Your task to perform on an android device: turn off data saver in the chrome app Image 0: 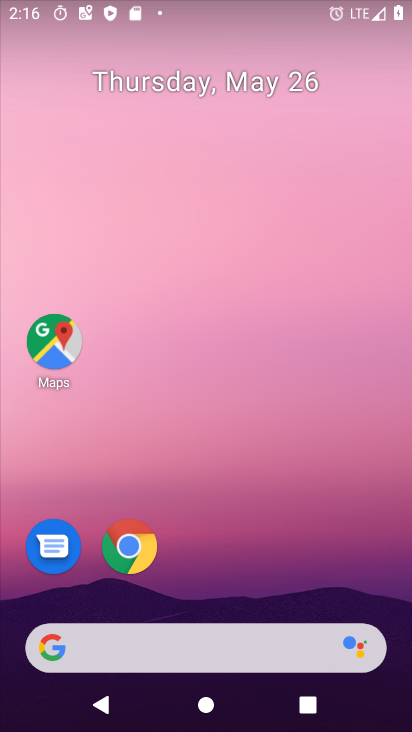
Step 0: drag from (245, 557) to (251, 80)
Your task to perform on an android device: turn off data saver in the chrome app Image 1: 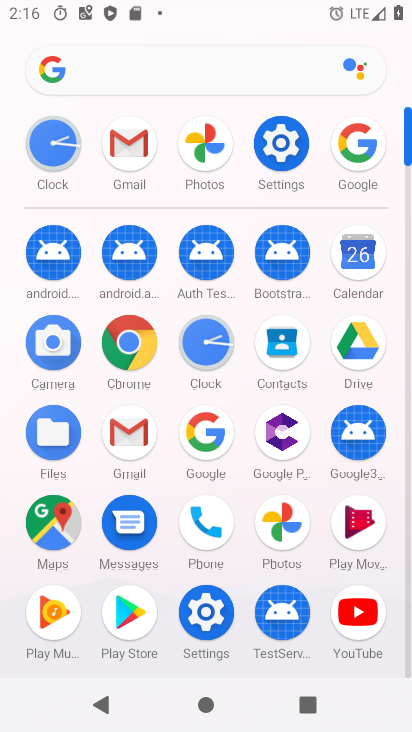
Step 1: click (129, 349)
Your task to perform on an android device: turn off data saver in the chrome app Image 2: 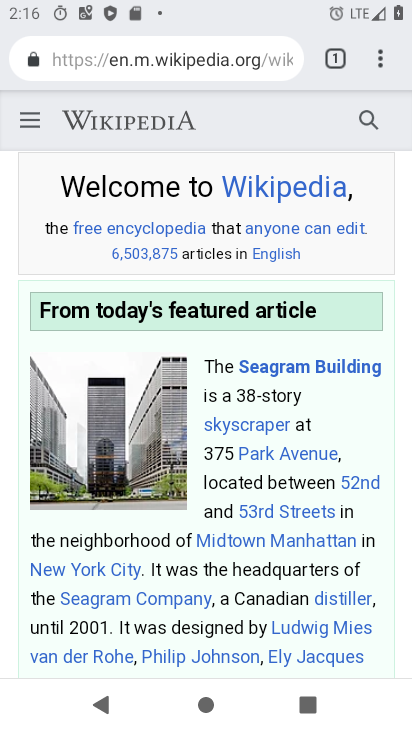
Step 2: click (375, 67)
Your task to perform on an android device: turn off data saver in the chrome app Image 3: 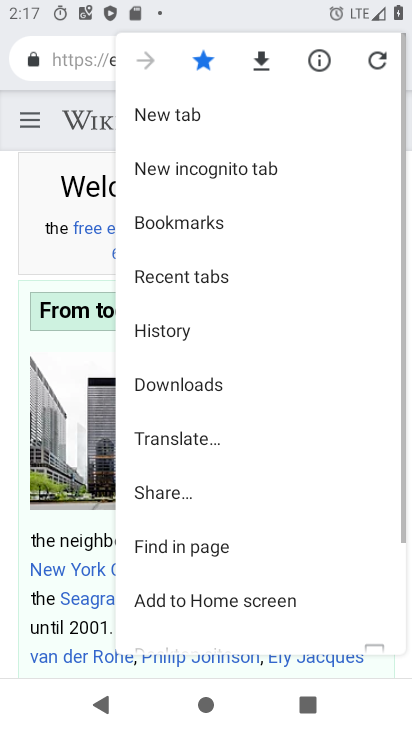
Step 3: drag from (258, 499) to (292, 122)
Your task to perform on an android device: turn off data saver in the chrome app Image 4: 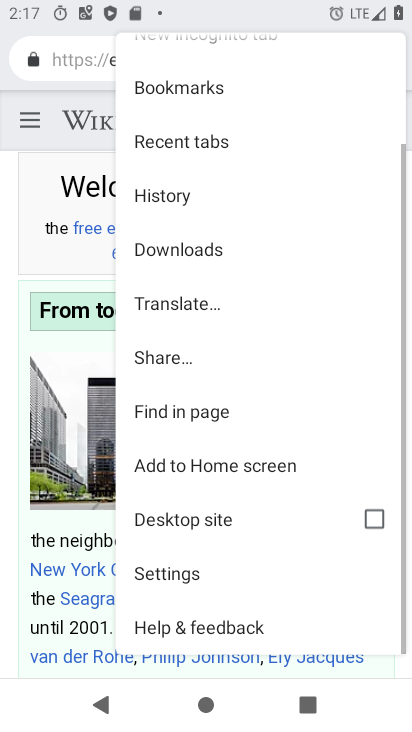
Step 4: click (192, 563)
Your task to perform on an android device: turn off data saver in the chrome app Image 5: 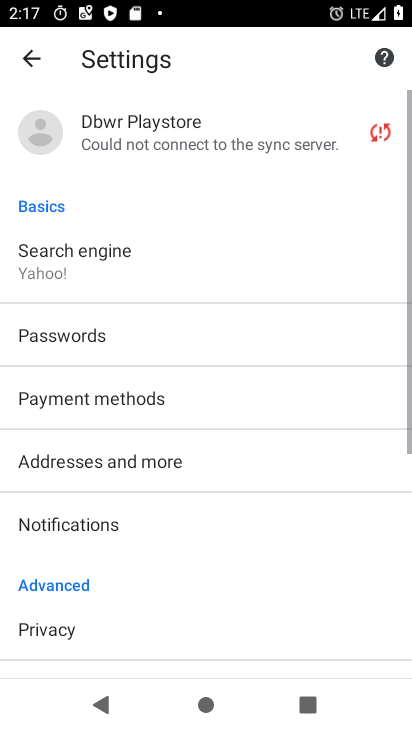
Step 5: drag from (150, 539) to (190, 126)
Your task to perform on an android device: turn off data saver in the chrome app Image 6: 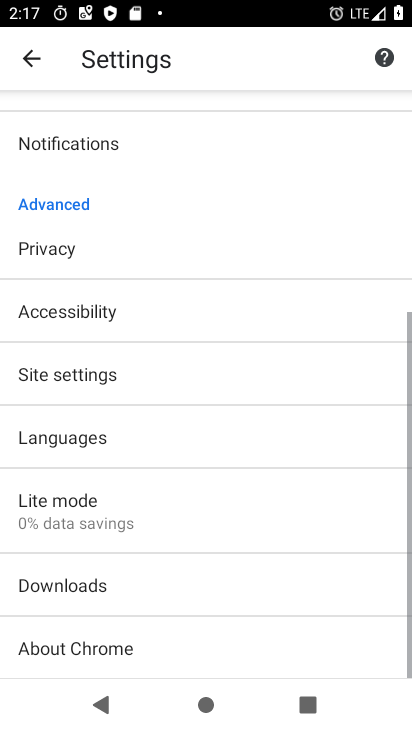
Step 6: drag from (208, 394) to (216, 345)
Your task to perform on an android device: turn off data saver in the chrome app Image 7: 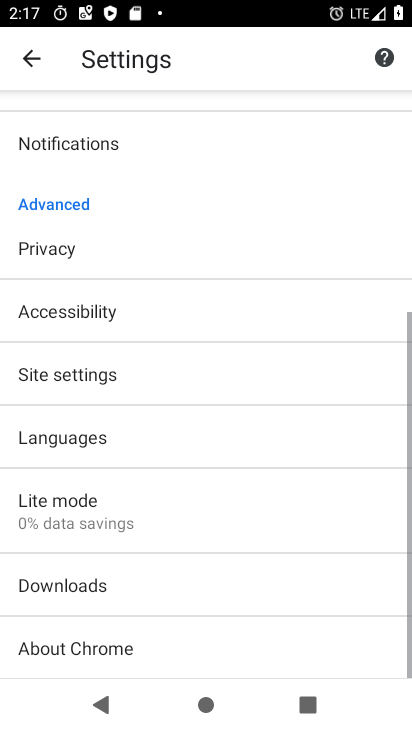
Step 7: click (125, 507)
Your task to perform on an android device: turn off data saver in the chrome app Image 8: 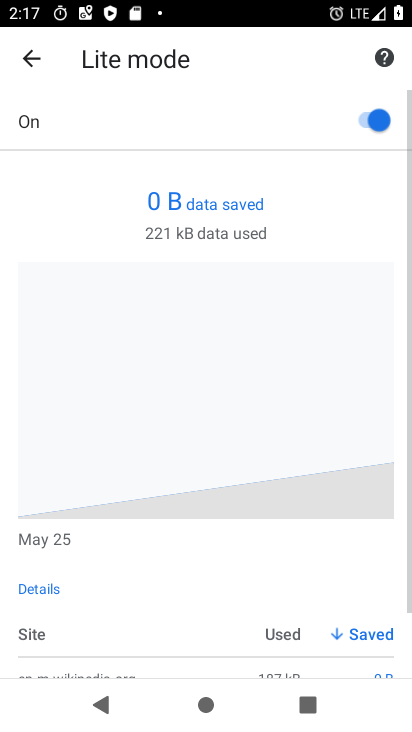
Step 8: click (372, 125)
Your task to perform on an android device: turn off data saver in the chrome app Image 9: 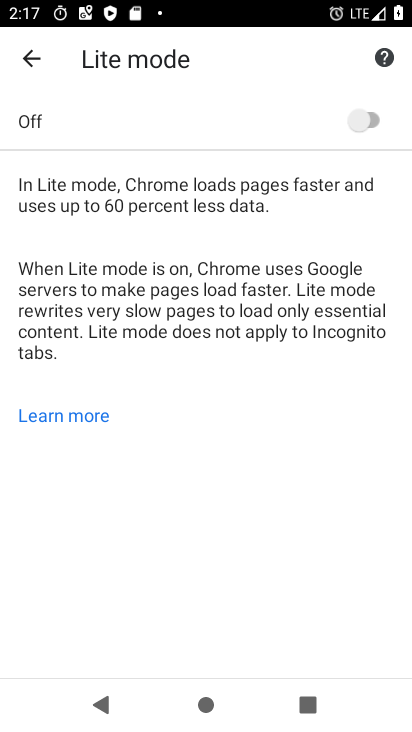
Step 9: task complete